Your task to perform on an android device: uninstall "File Manager" Image 0: 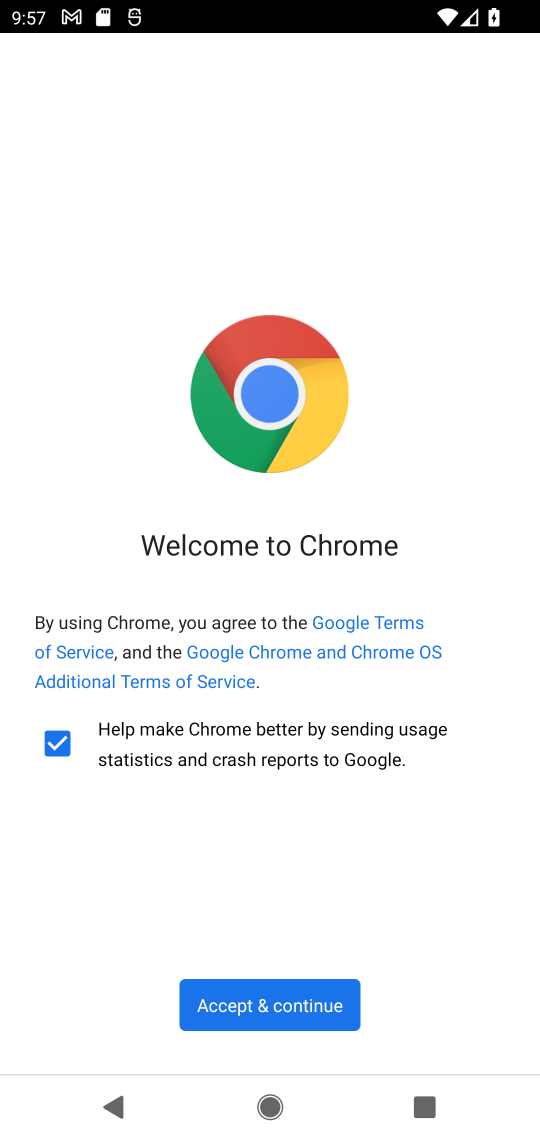
Step 0: press home button
Your task to perform on an android device: uninstall "File Manager" Image 1: 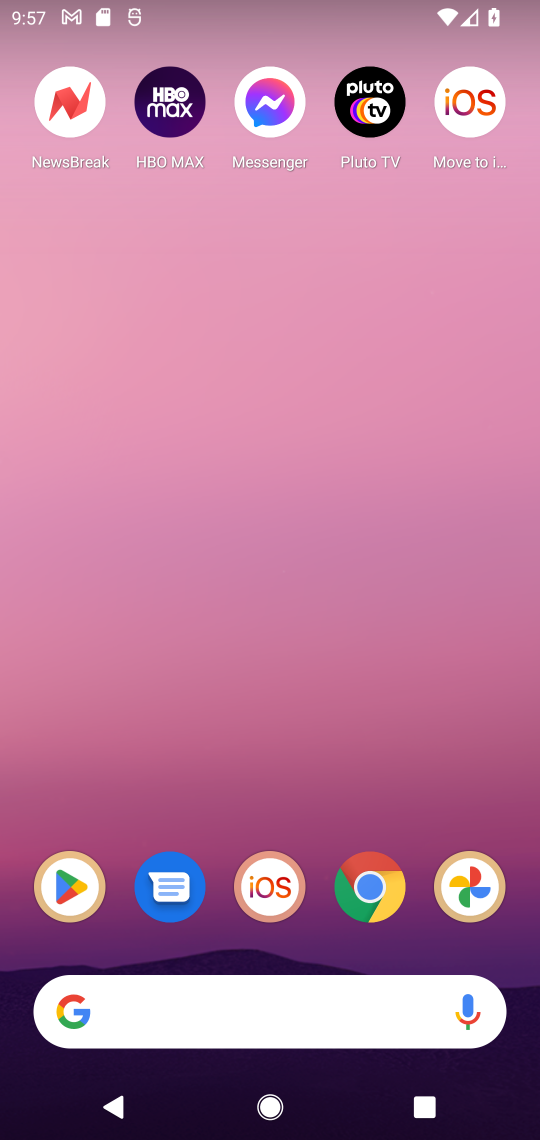
Step 1: press home button
Your task to perform on an android device: uninstall "File Manager" Image 2: 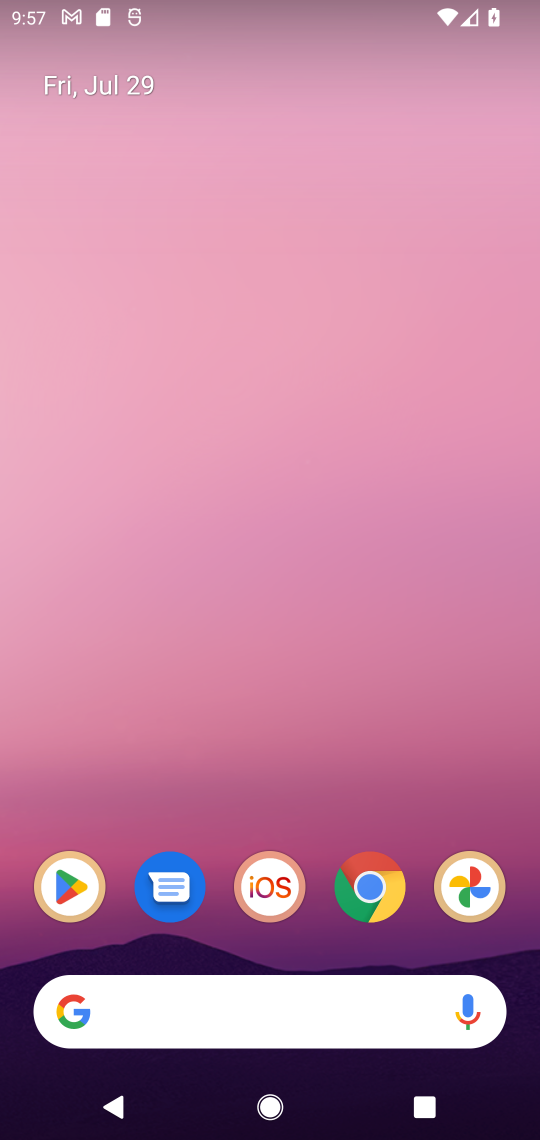
Step 2: click (78, 902)
Your task to perform on an android device: uninstall "File Manager" Image 3: 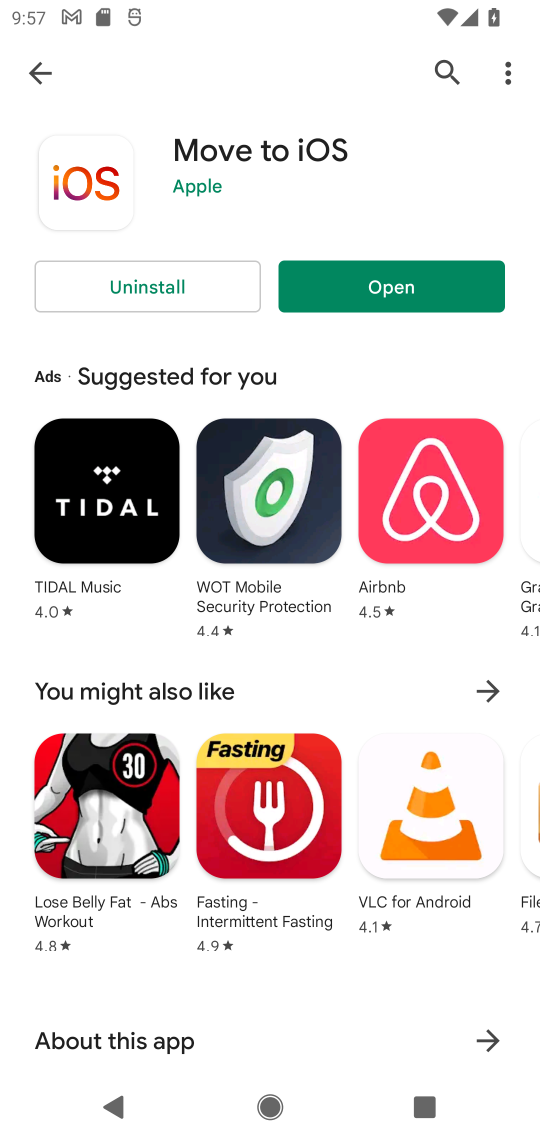
Step 3: click (437, 84)
Your task to perform on an android device: uninstall "File Manager" Image 4: 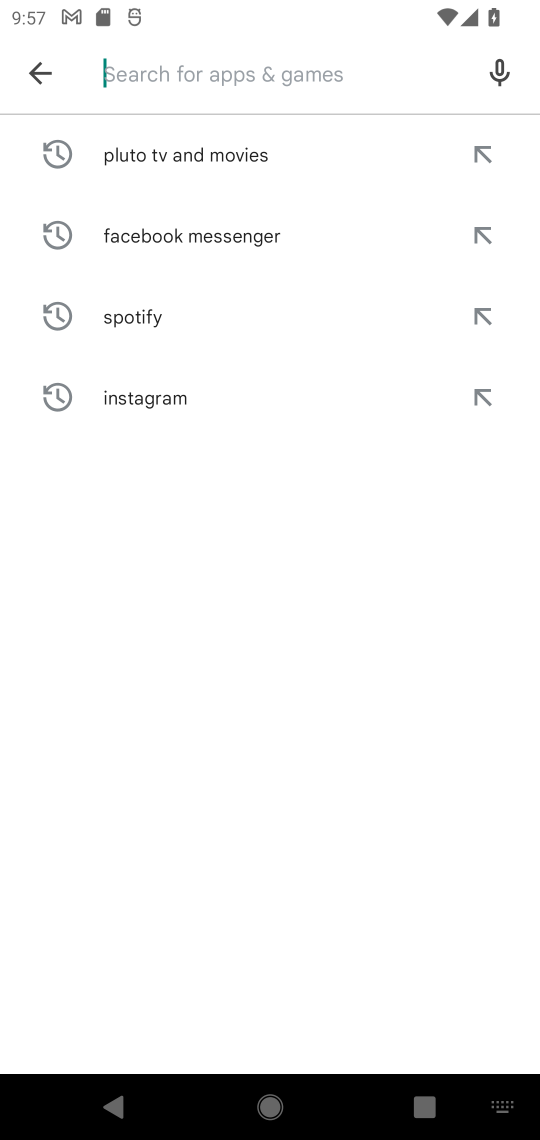
Step 4: type "file manager"
Your task to perform on an android device: uninstall "File Manager" Image 5: 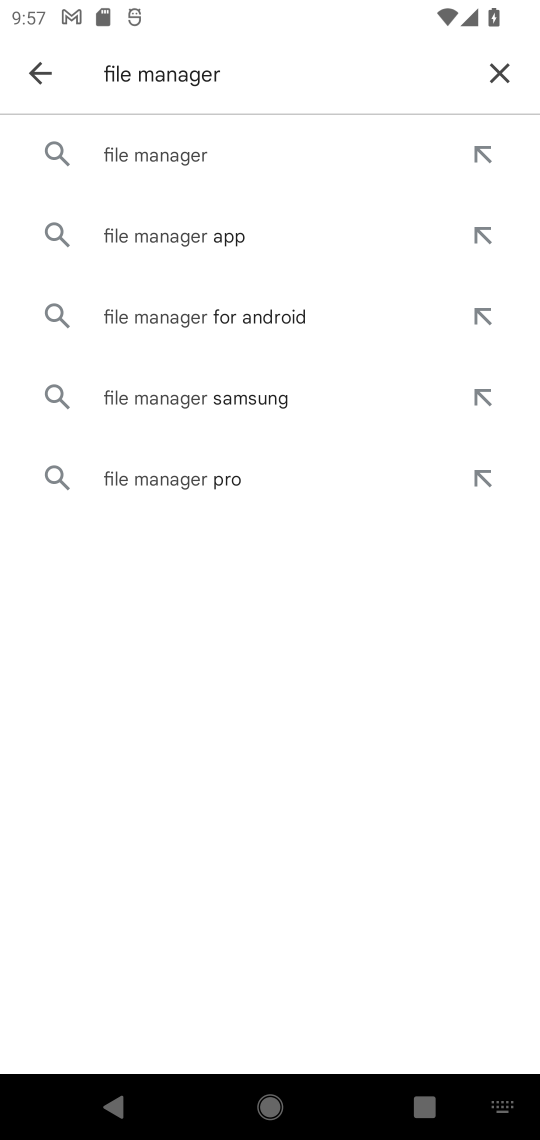
Step 5: click (303, 140)
Your task to perform on an android device: uninstall "File Manager" Image 6: 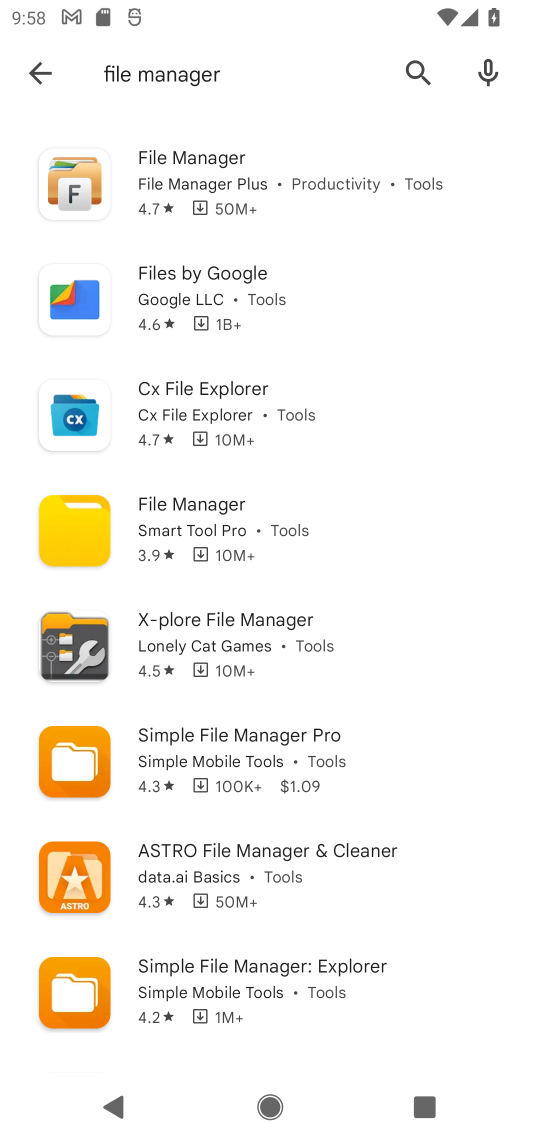
Step 6: click (254, 179)
Your task to perform on an android device: uninstall "File Manager" Image 7: 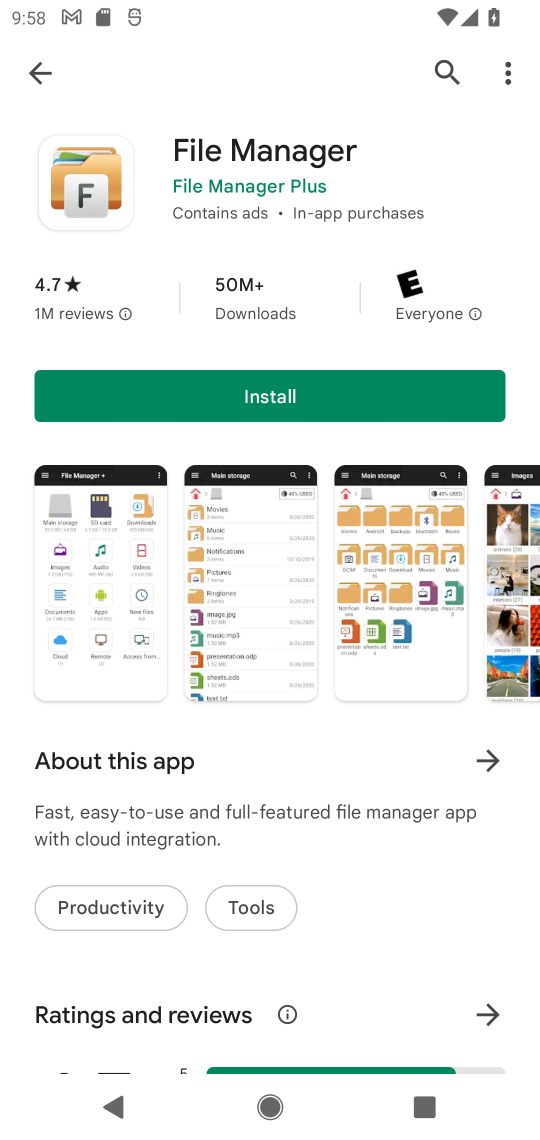
Step 7: task complete